Your task to perform on an android device: turn on the 24-hour format for clock Image 0: 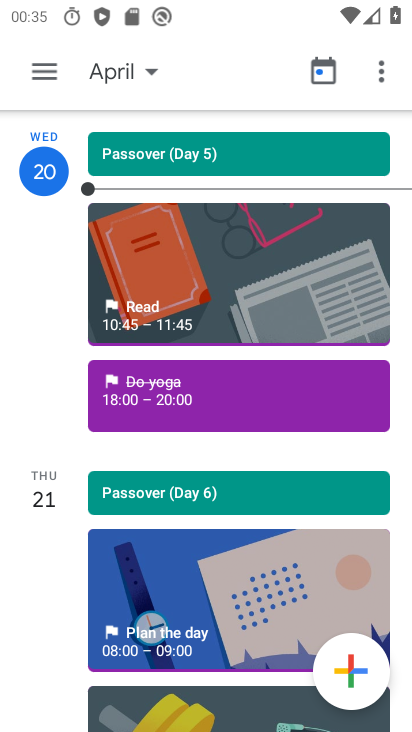
Step 0: press home button
Your task to perform on an android device: turn on the 24-hour format for clock Image 1: 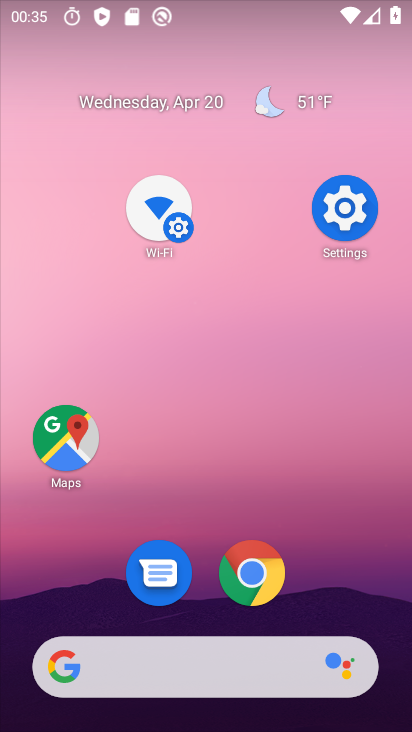
Step 1: drag from (327, 590) to (319, 186)
Your task to perform on an android device: turn on the 24-hour format for clock Image 2: 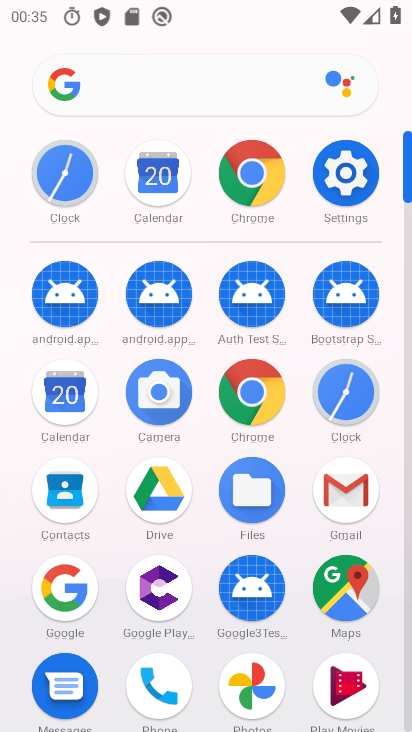
Step 2: click (355, 407)
Your task to perform on an android device: turn on the 24-hour format for clock Image 3: 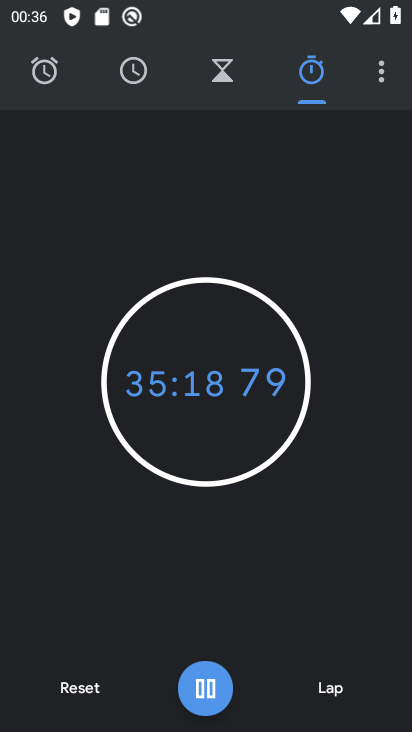
Step 3: click (389, 78)
Your task to perform on an android device: turn on the 24-hour format for clock Image 4: 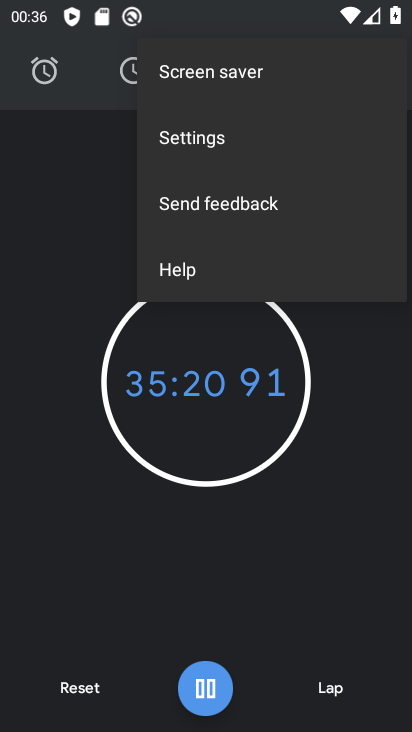
Step 4: click (279, 139)
Your task to perform on an android device: turn on the 24-hour format for clock Image 5: 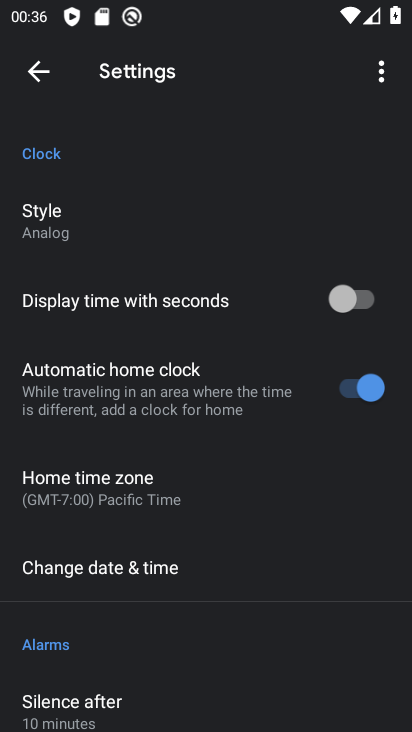
Step 5: click (162, 579)
Your task to perform on an android device: turn on the 24-hour format for clock Image 6: 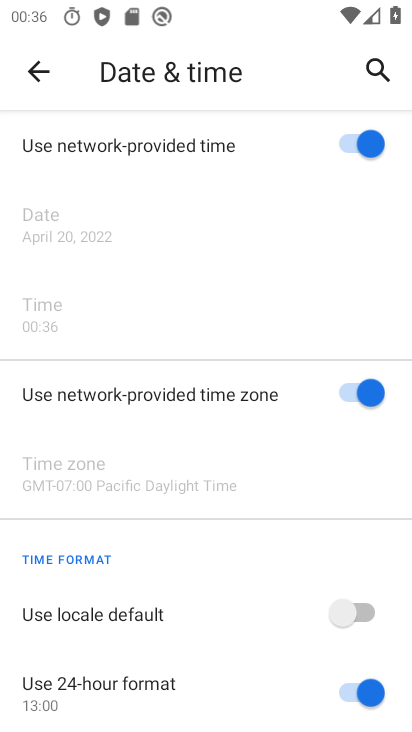
Step 6: task complete